Your task to perform on an android device: Open Google Chrome Image 0: 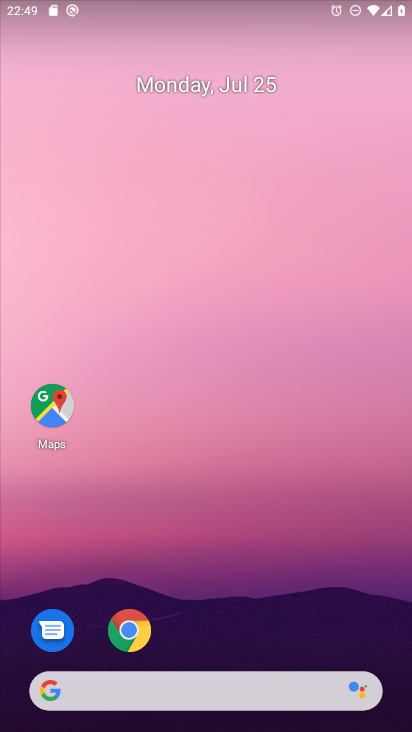
Step 0: drag from (300, 579) to (295, 14)
Your task to perform on an android device: Open Google Chrome Image 1: 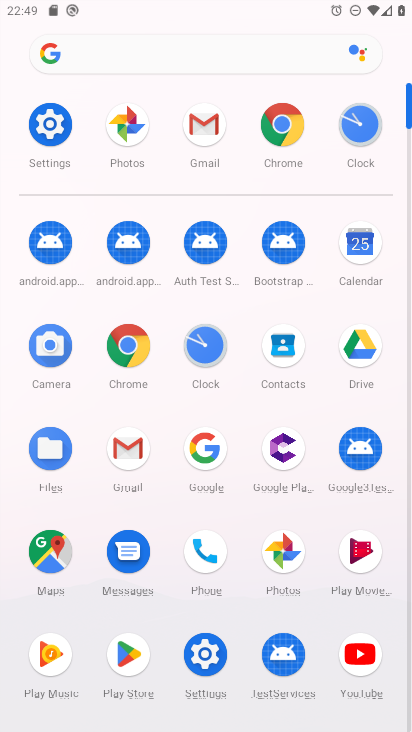
Step 1: click (284, 122)
Your task to perform on an android device: Open Google Chrome Image 2: 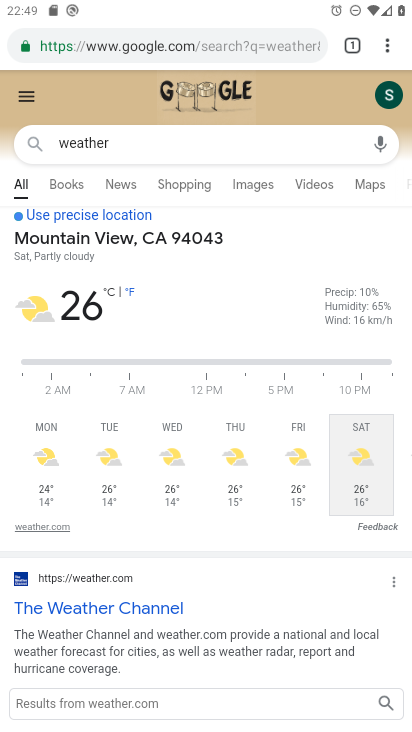
Step 2: task complete